Your task to perform on an android device: turn on bluetooth scan Image 0: 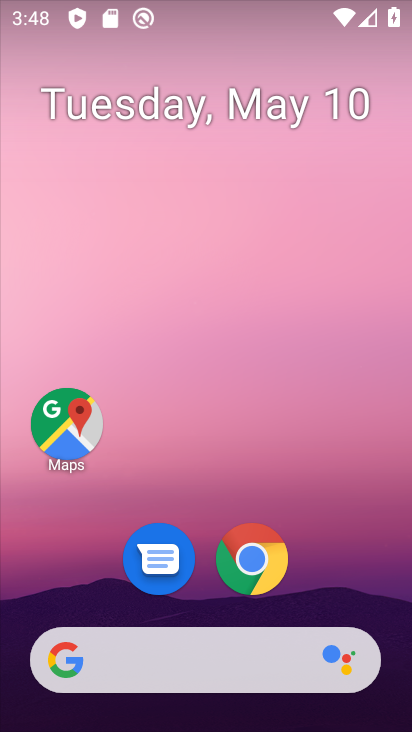
Step 0: drag from (181, 628) to (321, 108)
Your task to perform on an android device: turn on bluetooth scan Image 1: 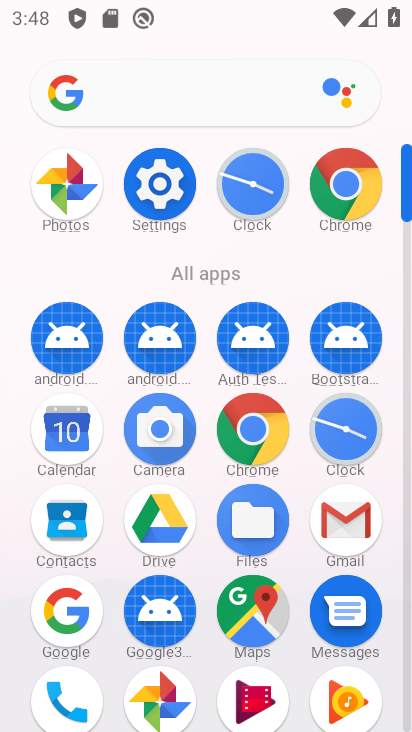
Step 1: drag from (175, 621) to (226, 417)
Your task to perform on an android device: turn on bluetooth scan Image 2: 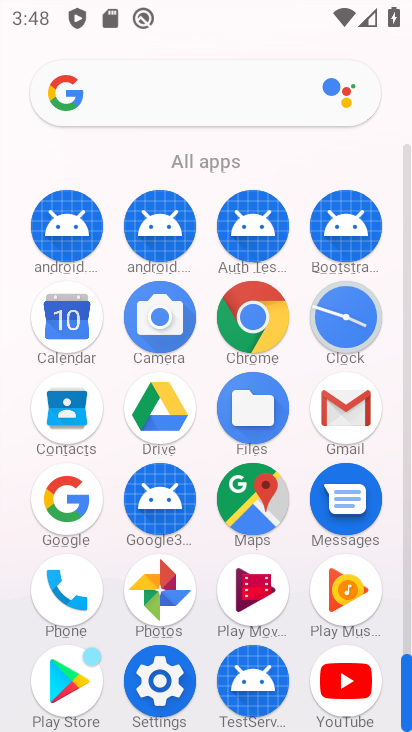
Step 2: click (159, 684)
Your task to perform on an android device: turn on bluetooth scan Image 3: 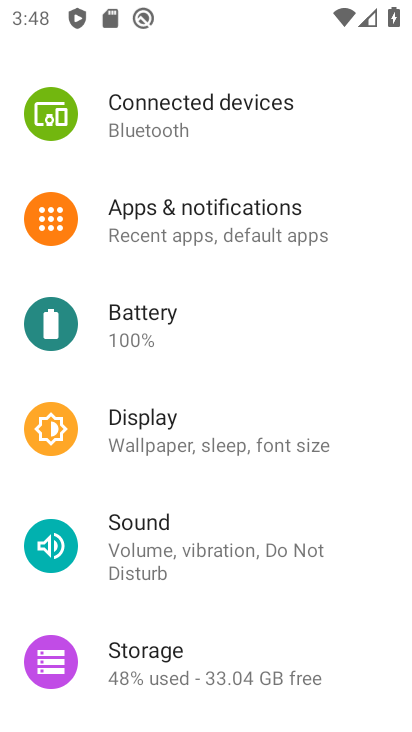
Step 3: drag from (265, 173) to (229, 576)
Your task to perform on an android device: turn on bluetooth scan Image 4: 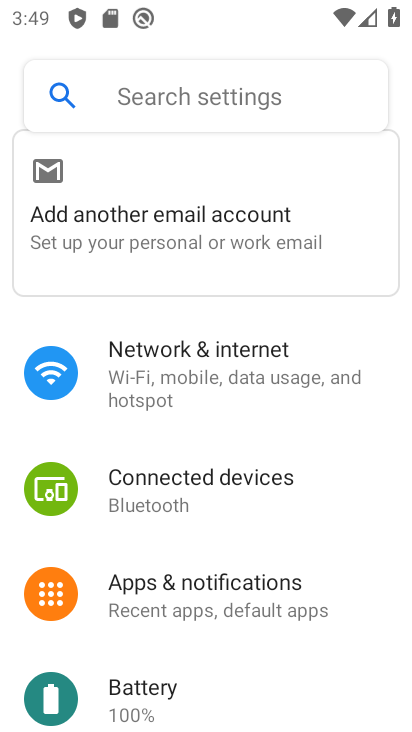
Step 4: click (202, 496)
Your task to perform on an android device: turn on bluetooth scan Image 5: 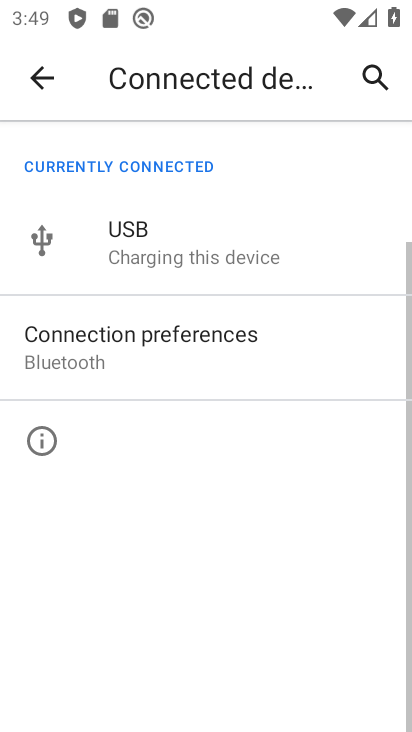
Step 5: click (200, 345)
Your task to perform on an android device: turn on bluetooth scan Image 6: 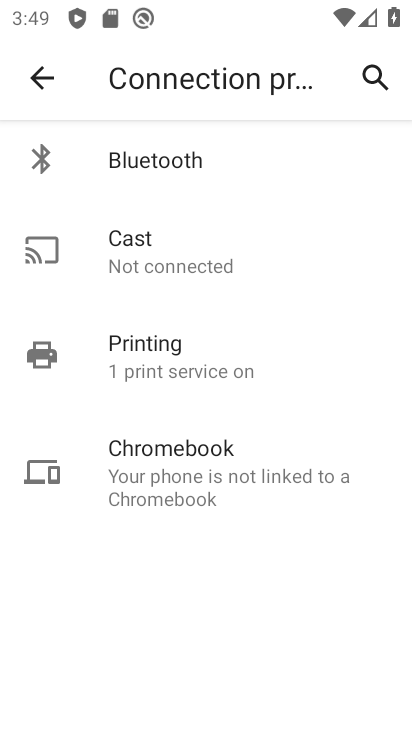
Step 6: click (214, 166)
Your task to perform on an android device: turn on bluetooth scan Image 7: 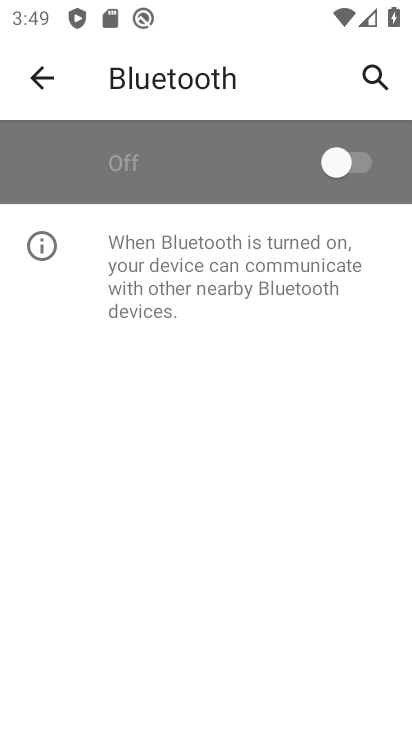
Step 7: task complete